Your task to perform on an android device: Check the weather Image 0: 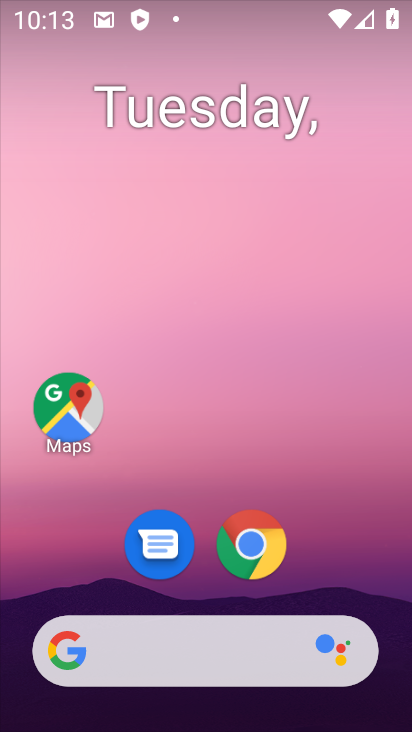
Step 0: drag from (377, 592) to (266, 79)
Your task to perform on an android device: Check the weather Image 1: 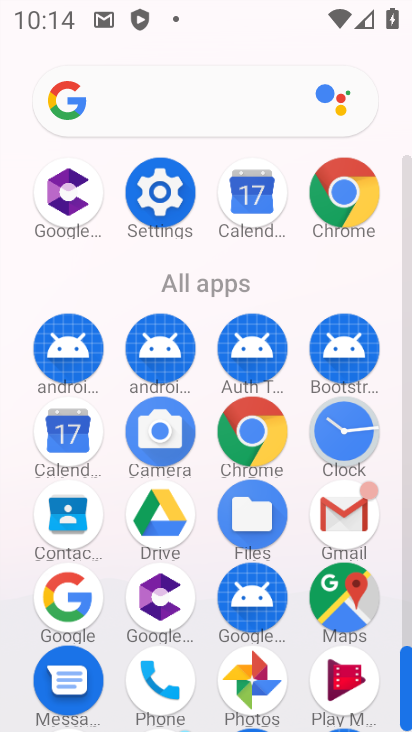
Step 1: click (348, 224)
Your task to perform on an android device: Check the weather Image 2: 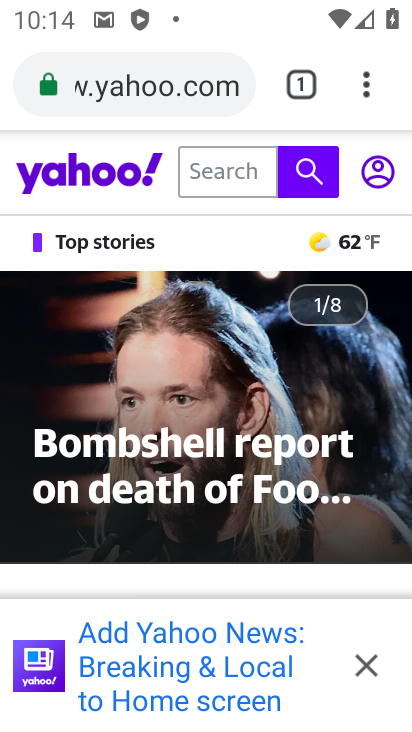
Step 2: click (153, 89)
Your task to perform on an android device: Check the weather Image 3: 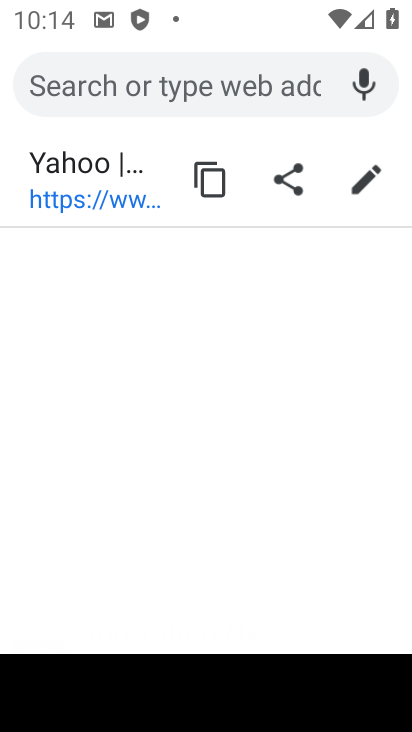
Step 3: click (184, 86)
Your task to perform on an android device: Check the weather Image 4: 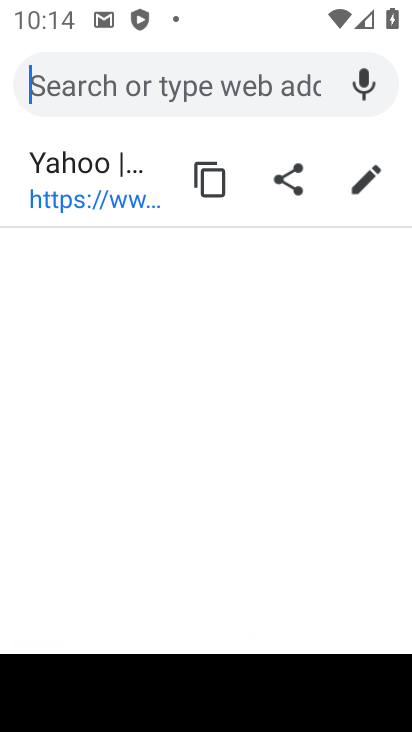
Step 4: type "weather"
Your task to perform on an android device: Check the weather Image 5: 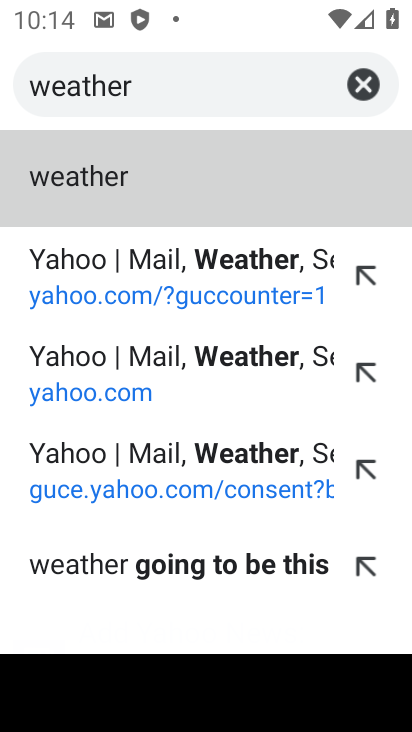
Step 5: click (100, 170)
Your task to perform on an android device: Check the weather Image 6: 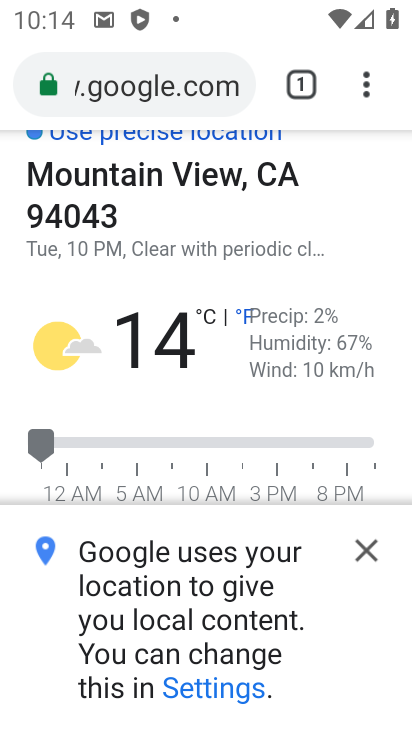
Step 6: click (375, 557)
Your task to perform on an android device: Check the weather Image 7: 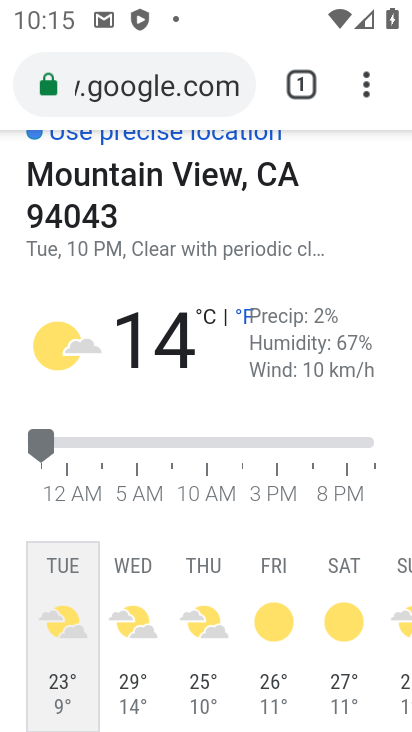
Step 7: task complete